Your task to perform on an android device: uninstall "Google Find My Device" Image 0: 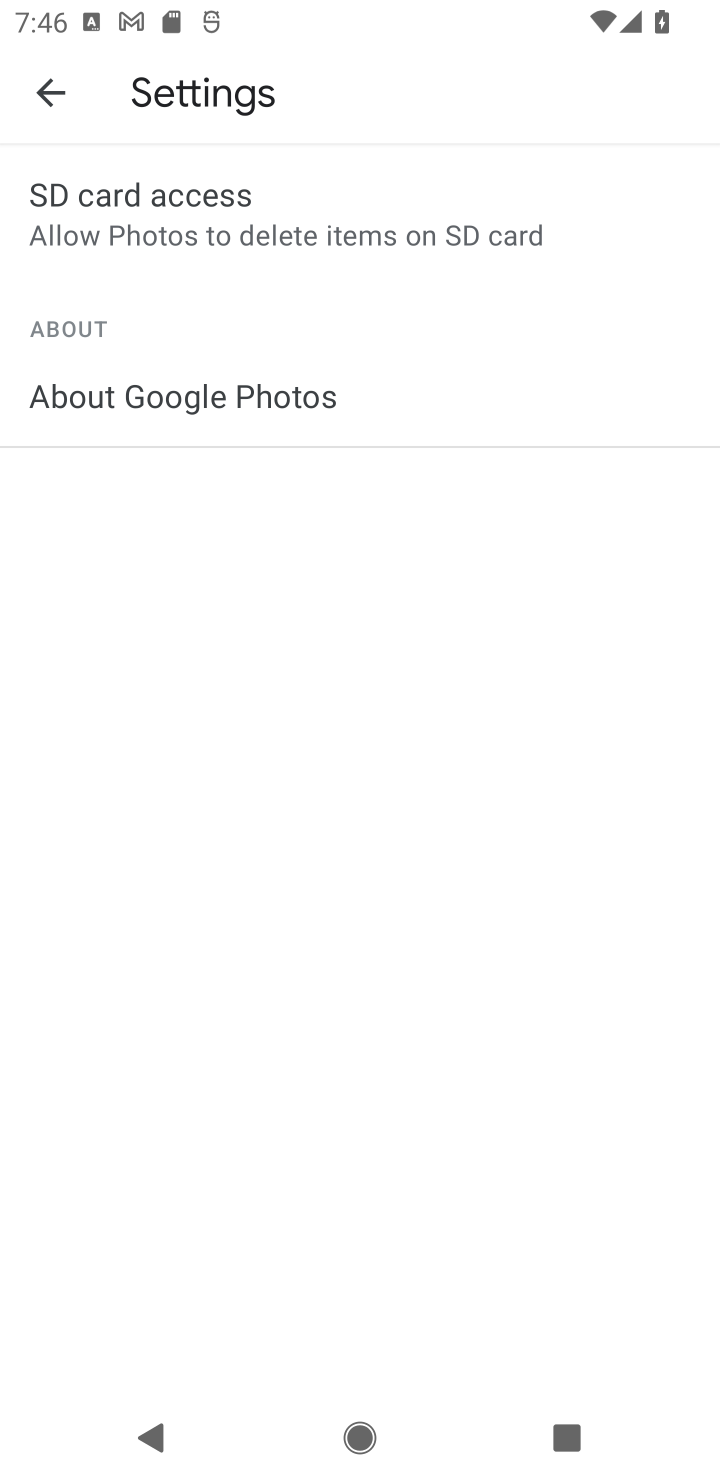
Step 0: press home button
Your task to perform on an android device: uninstall "Google Find My Device" Image 1: 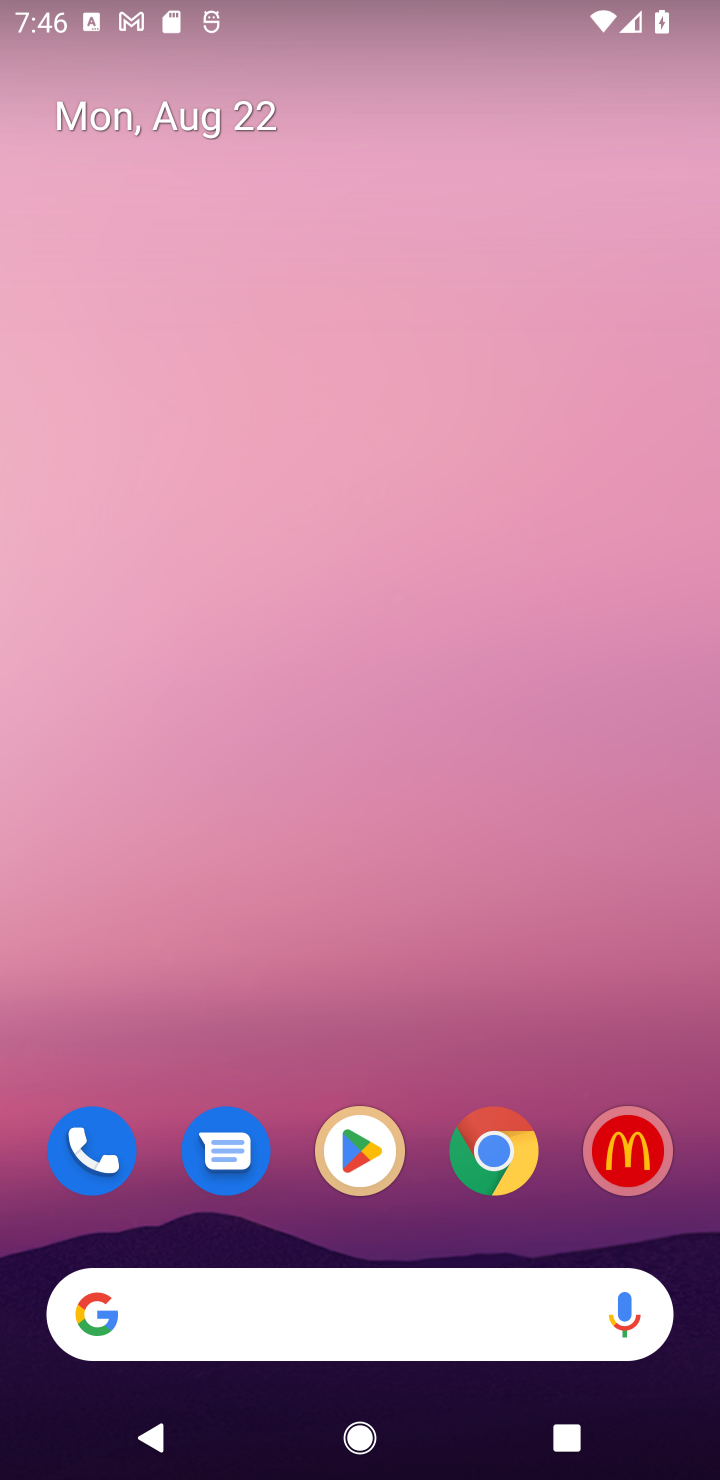
Step 1: click (365, 1153)
Your task to perform on an android device: uninstall "Google Find My Device" Image 2: 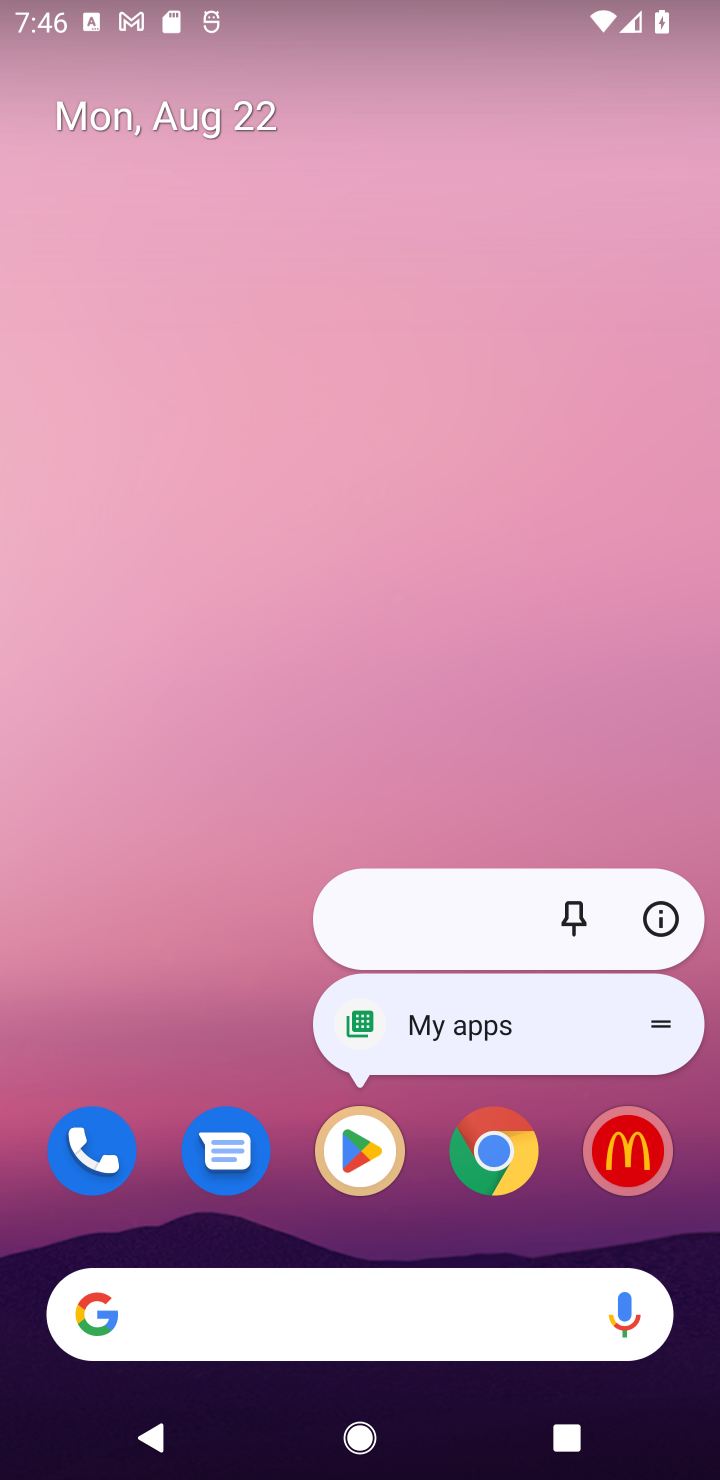
Step 2: click (365, 1158)
Your task to perform on an android device: uninstall "Google Find My Device" Image 3: 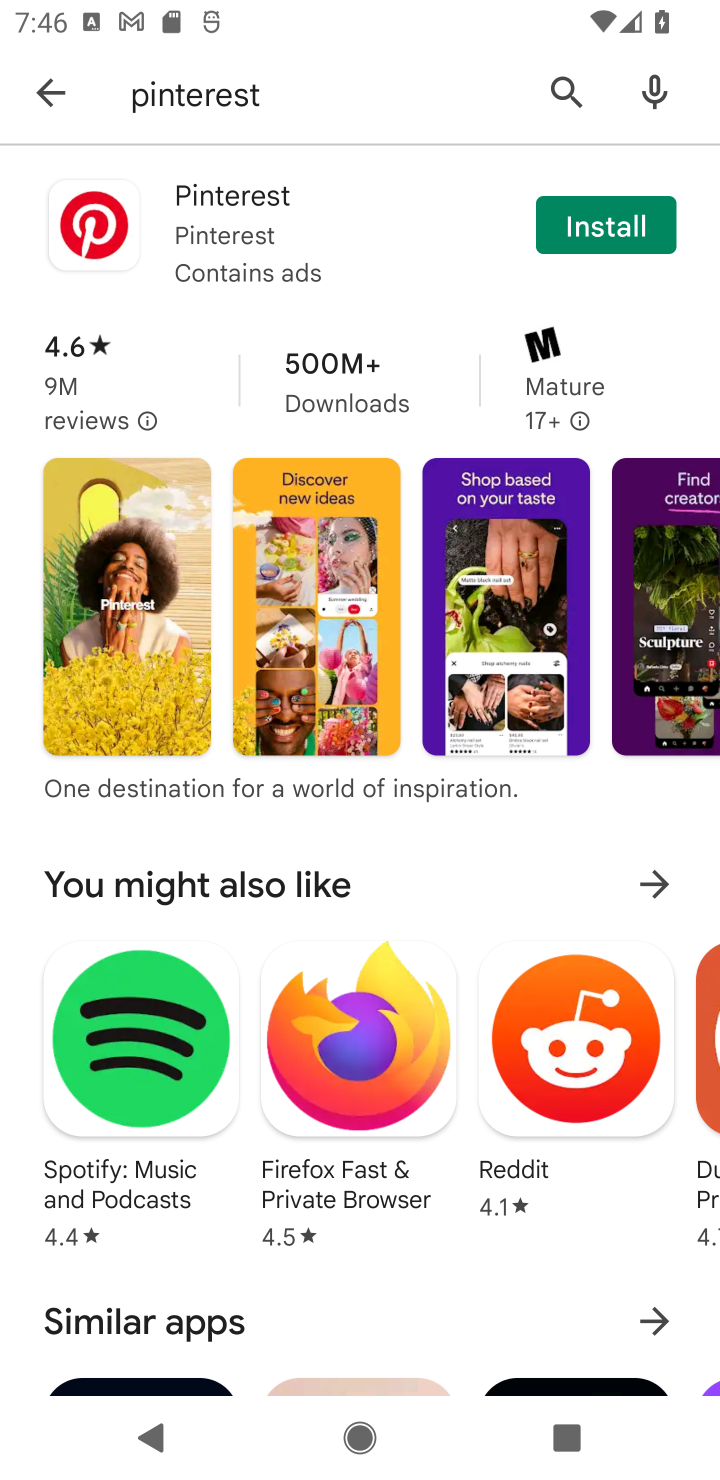
Step 3: click (552, 85)
Your task to perform on an android device: uninstall "Google Find My Device" Image 4: 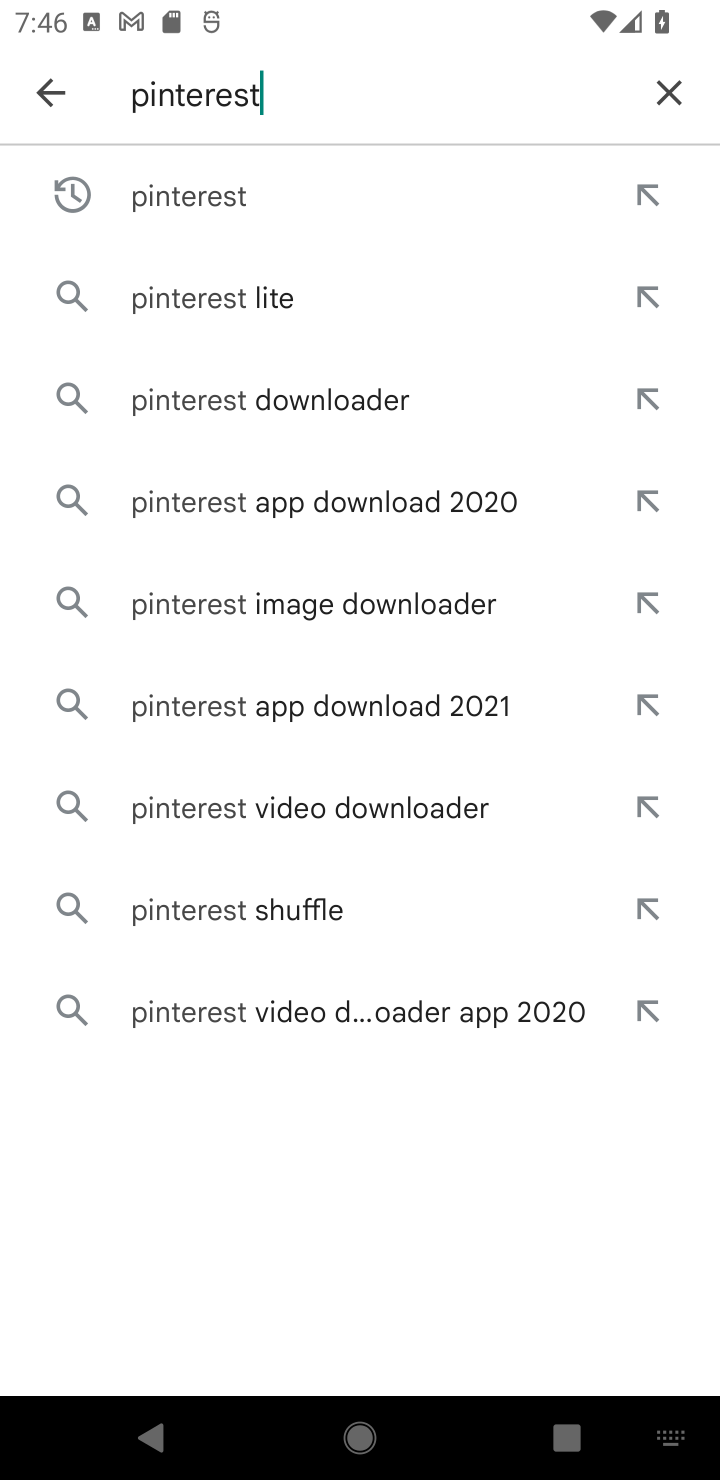
Step 4: click (663, 97)
Your task to perform on an android device: uninstall "Google Find My Device" Image 5: 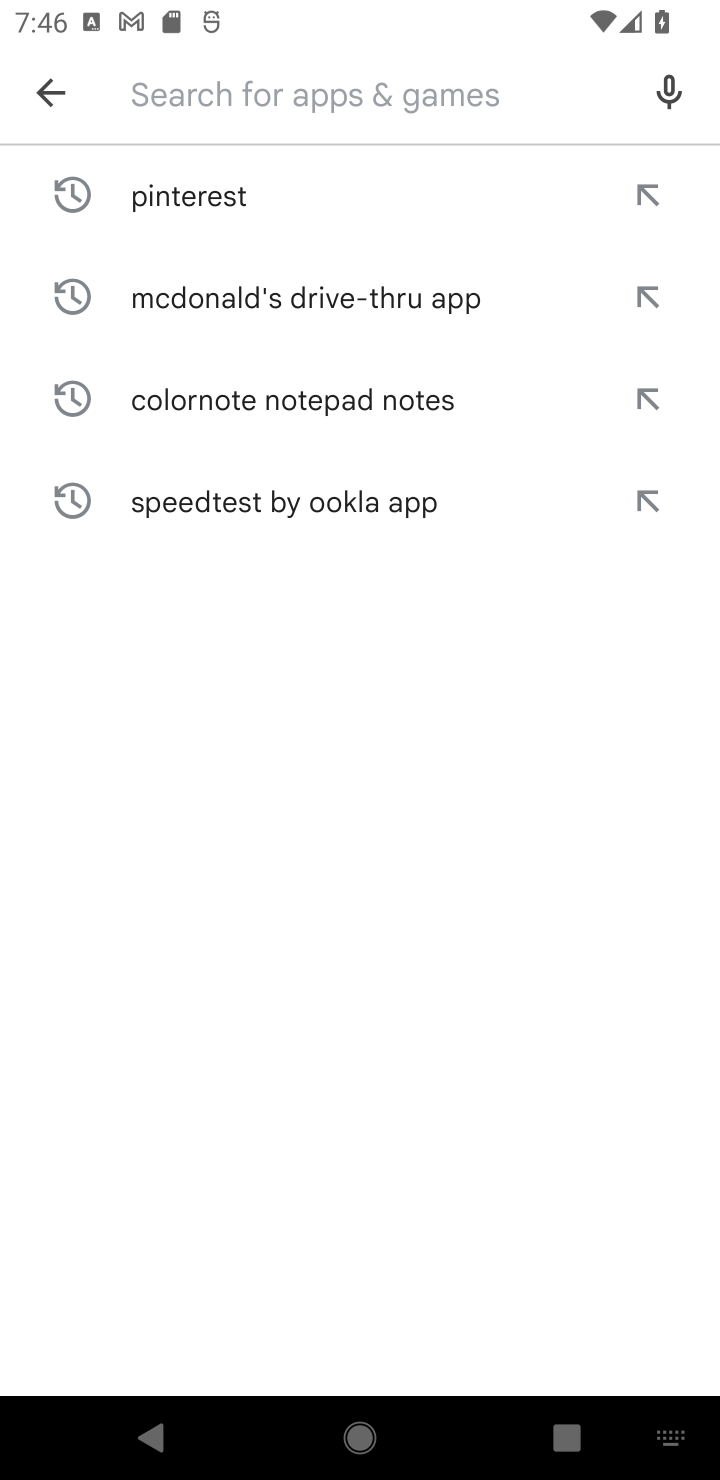
Step 5: type "Google Find My Device"
Your task to perform on an android device: uninstall "Google Find My Device" Image 6: 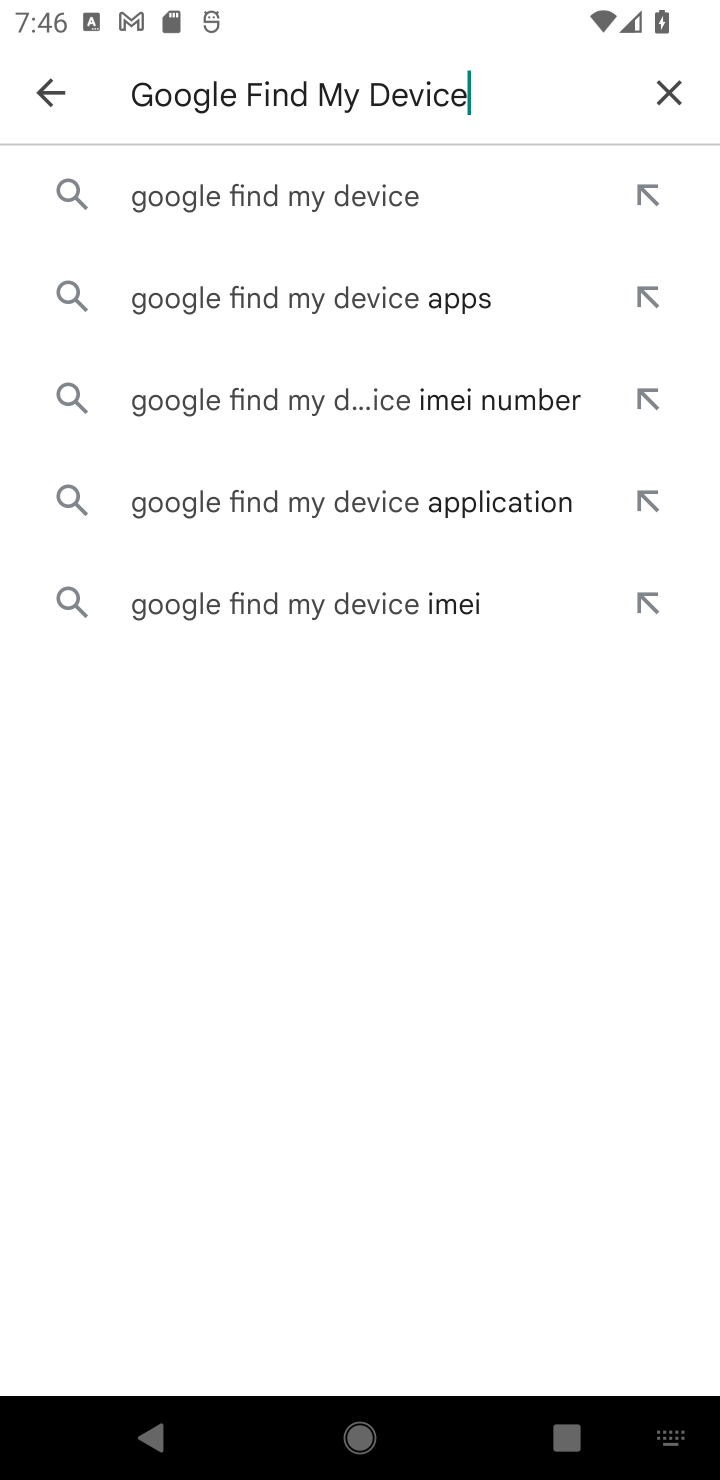
Step 6: click (357, 191)
Your task to perform on an android device: uninstall "Google Find My Device" Image 7: 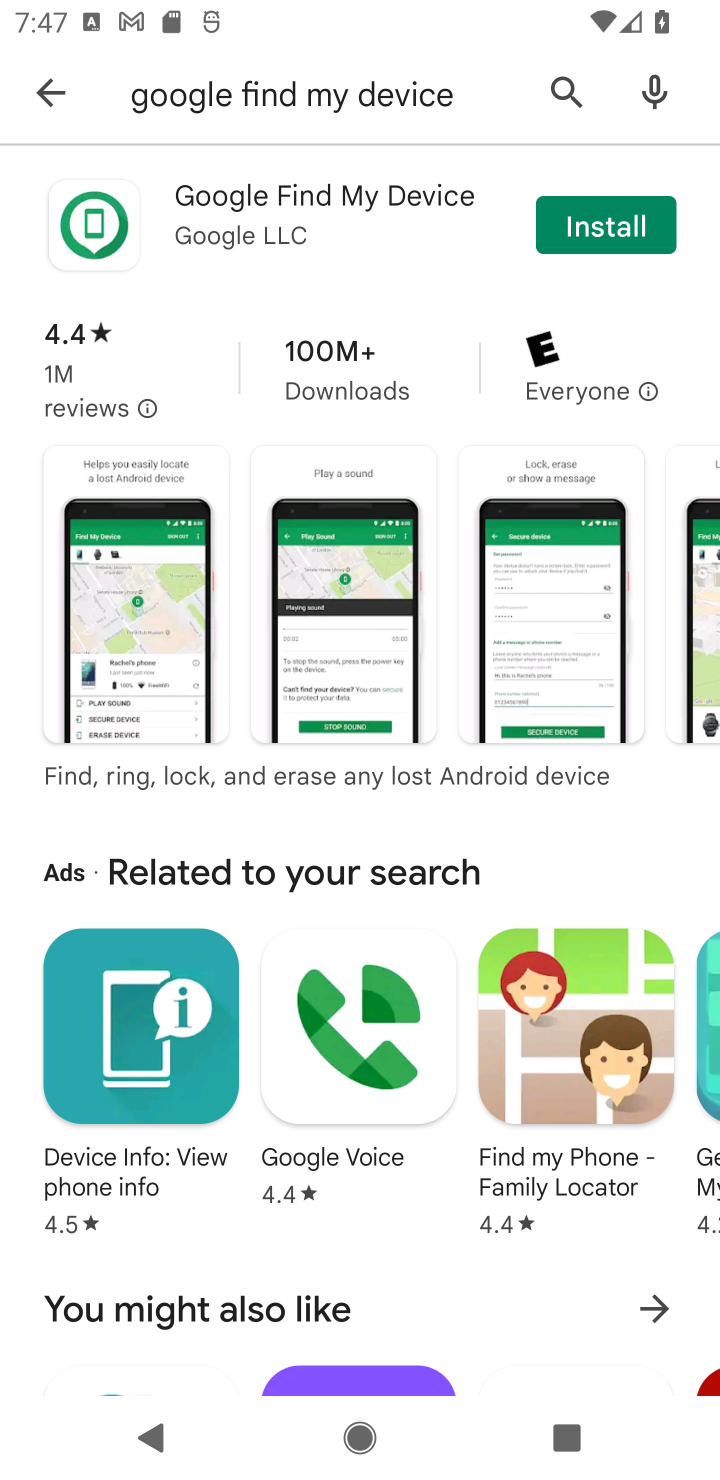
Step 7: task complete